Your task to perform on an android device: Search for "dell alienware" on newegg, select the first entry, and add it to the cart. Image 0: 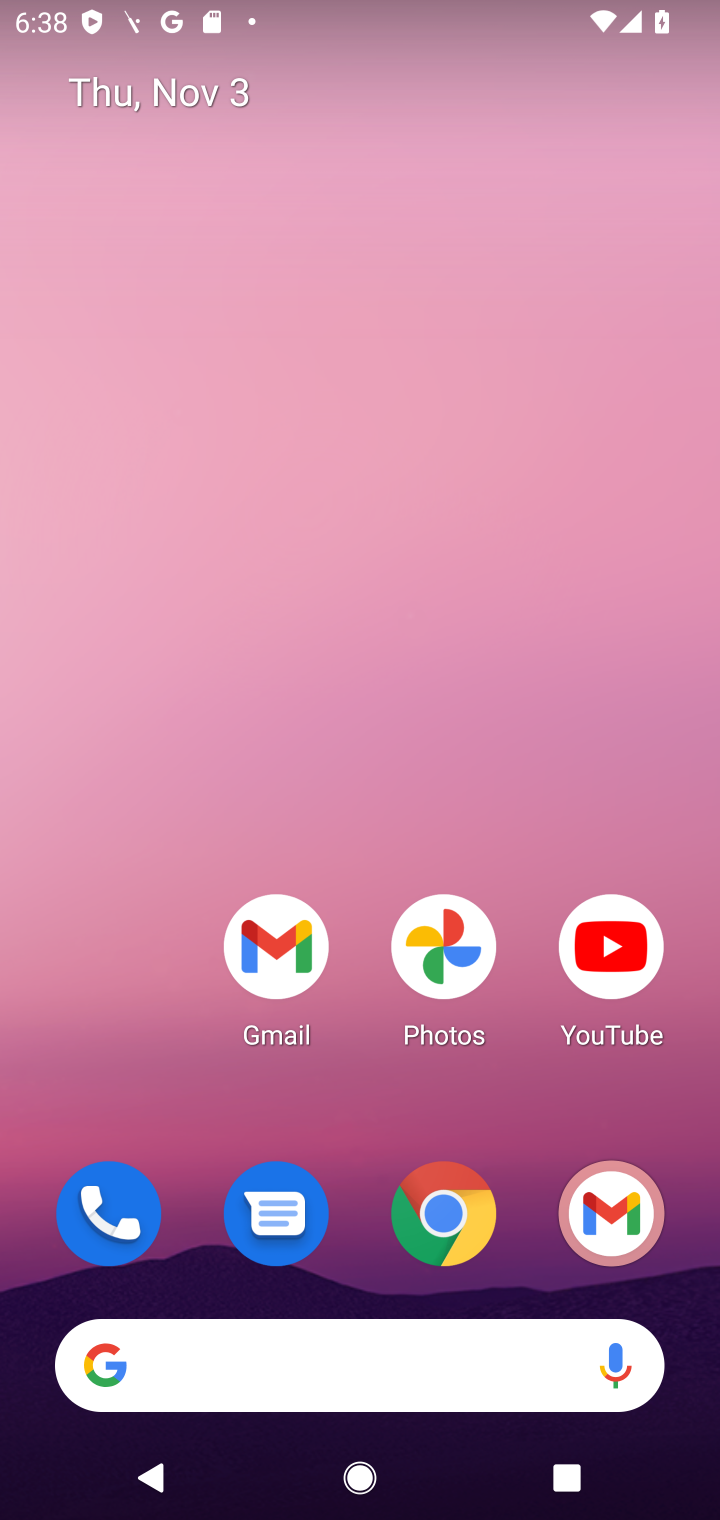
Step 0: click (440, 1208)
Your task to perform on an android device: Search for "dell alienware" on newegg, select the first entry, and add it to the cart. Image 1: 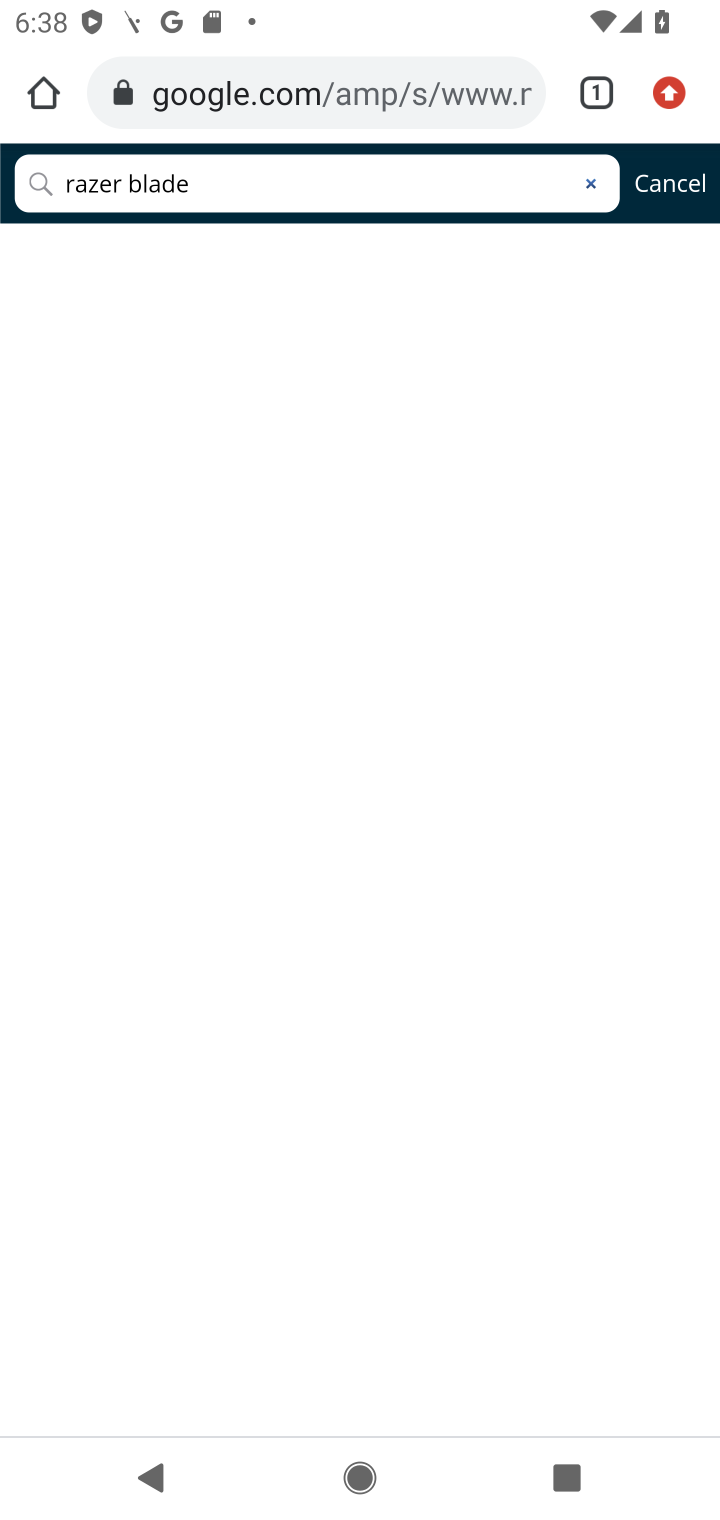
Step 1: click (196, 91)
Your task to perform on an android device: Search for "dell alienware" on newegg, select the first entry, and add it to the cart. Image 2: 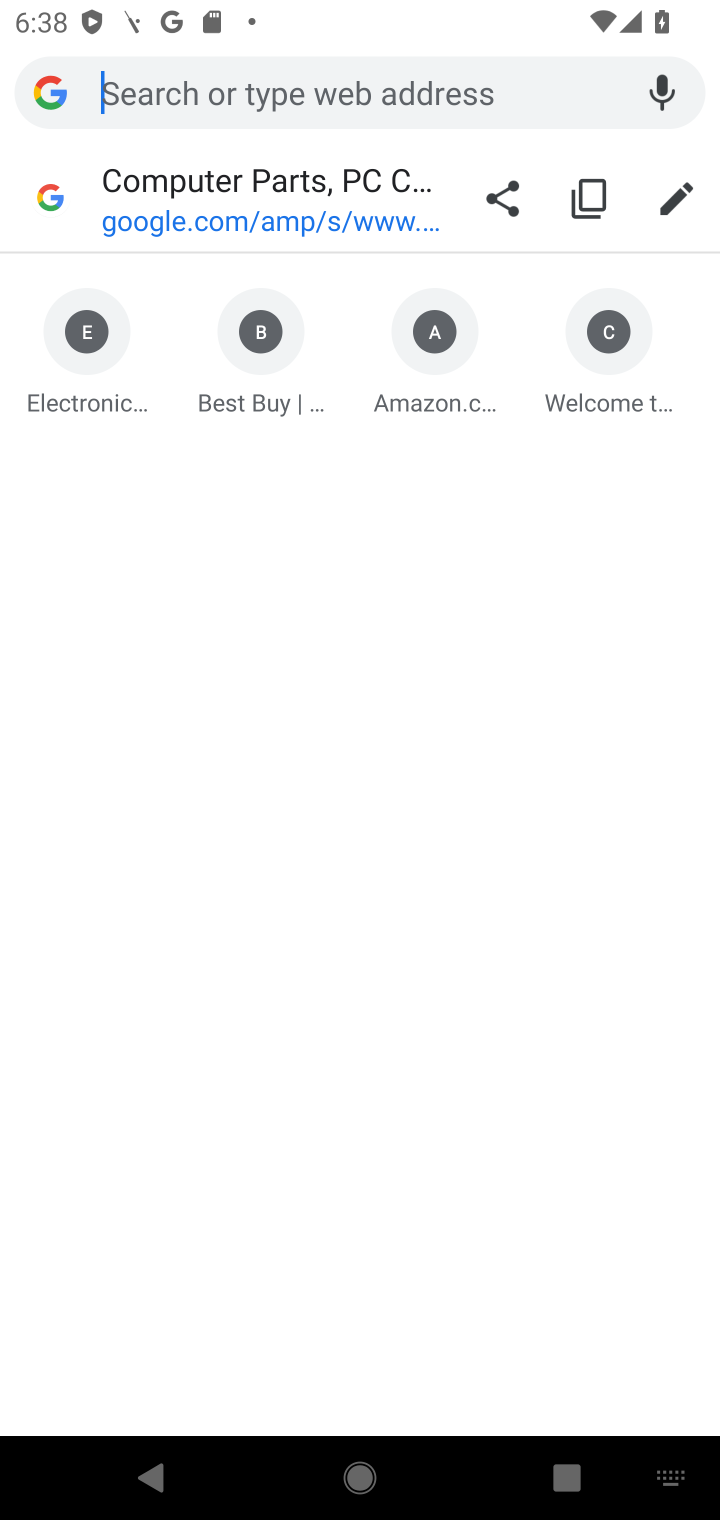
Step 2: type "newegg.com"
Your task to perform on an android device: Search for "dell alienware" on newegg, select the first entry, and add it to the cart. Image 3: 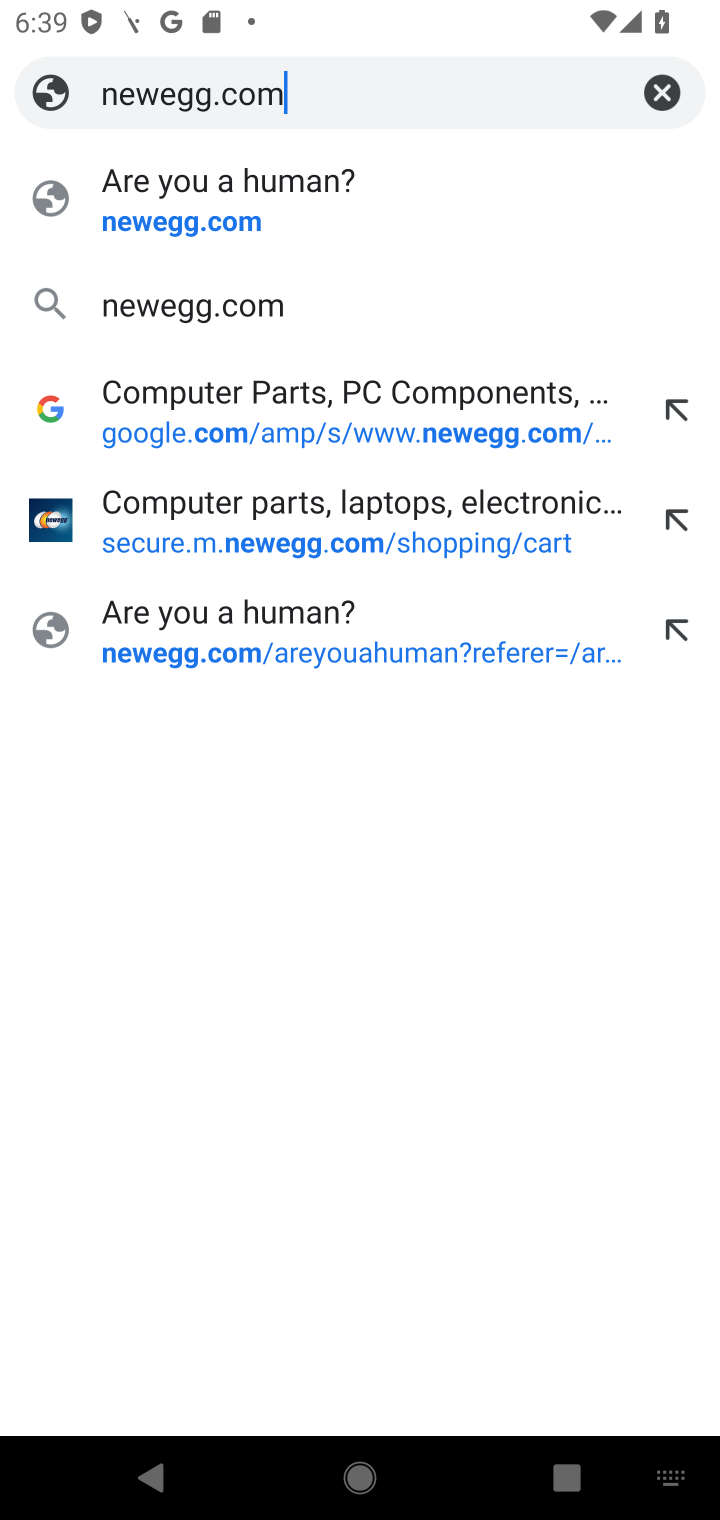
Step 3: click (187, 328)
Your task to perform on an android device: Search for "dell alienware" on newegg, select the first entry, and add it to the cart. Image 4: 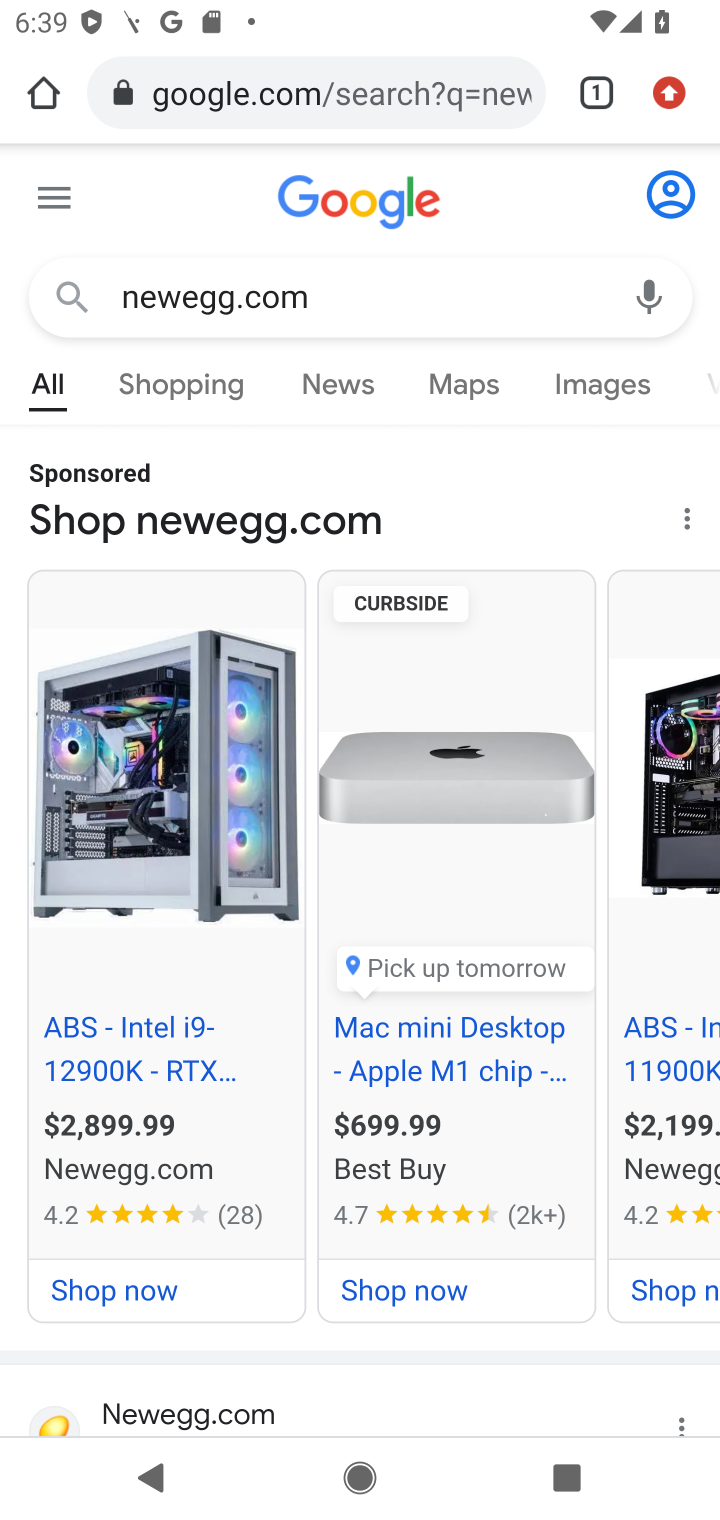
Step 4: drag from (296, 1023) to (262, 307)
Your task to perform on an android device: Search for "dell alienware" on newegg, select the first entry, and add it to the cart. Image 5: 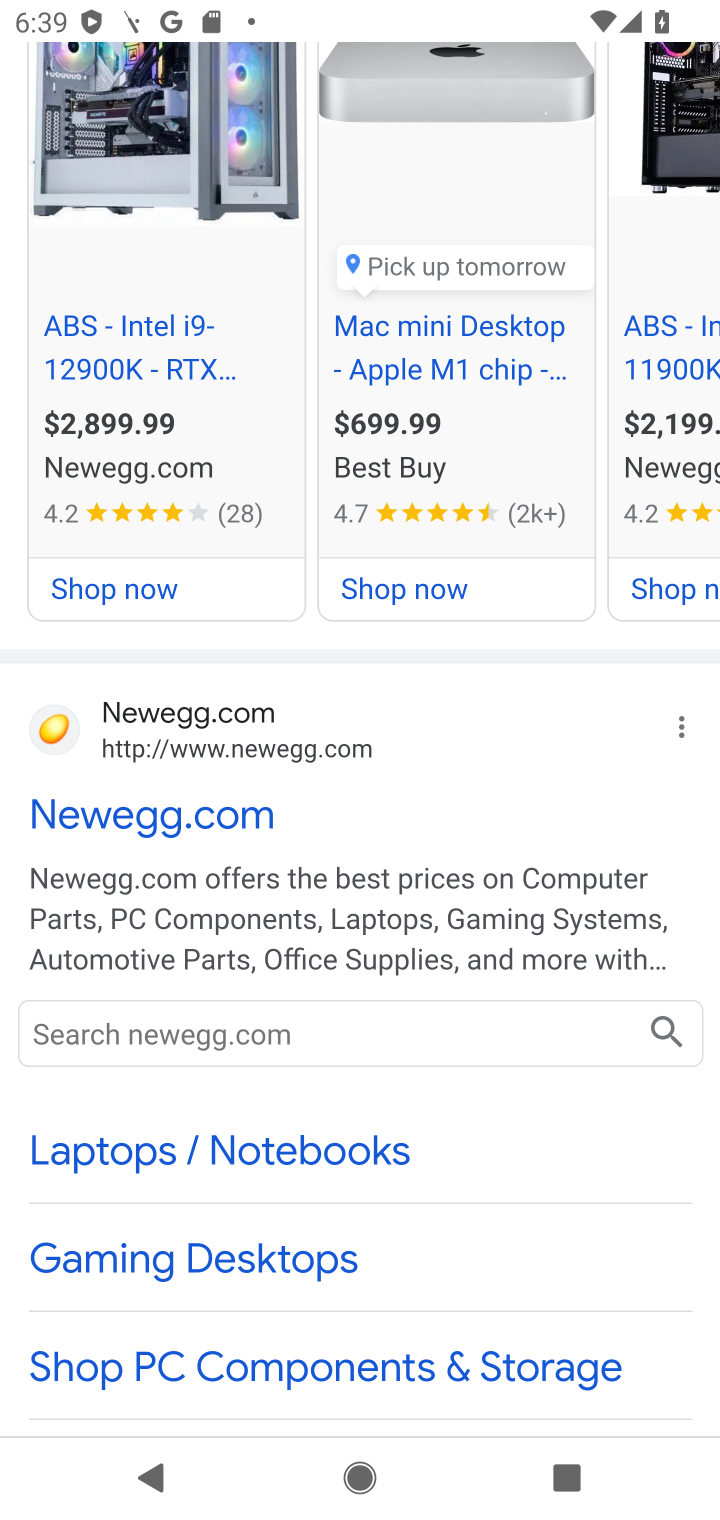
Step 5: click (125, 819)
Your task to perform on an android device: Search for "dell alienware" on newegg, select the first entry, and add it to the cart. Image 6: 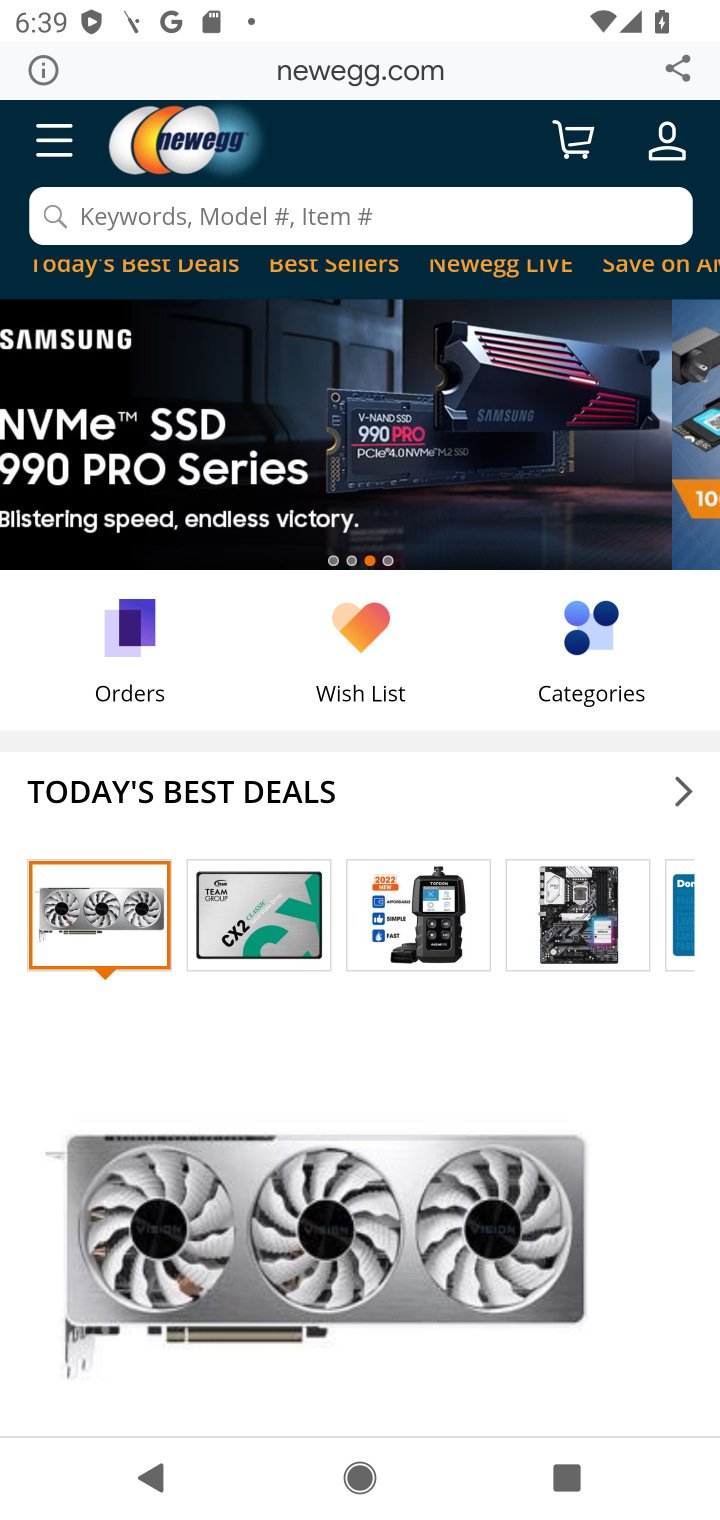
Step 6: click (178, 229)
Your task to perform on an android device: Search for "dell alienware" on newegg, select the first entry, and add it to the cart. Image 7: 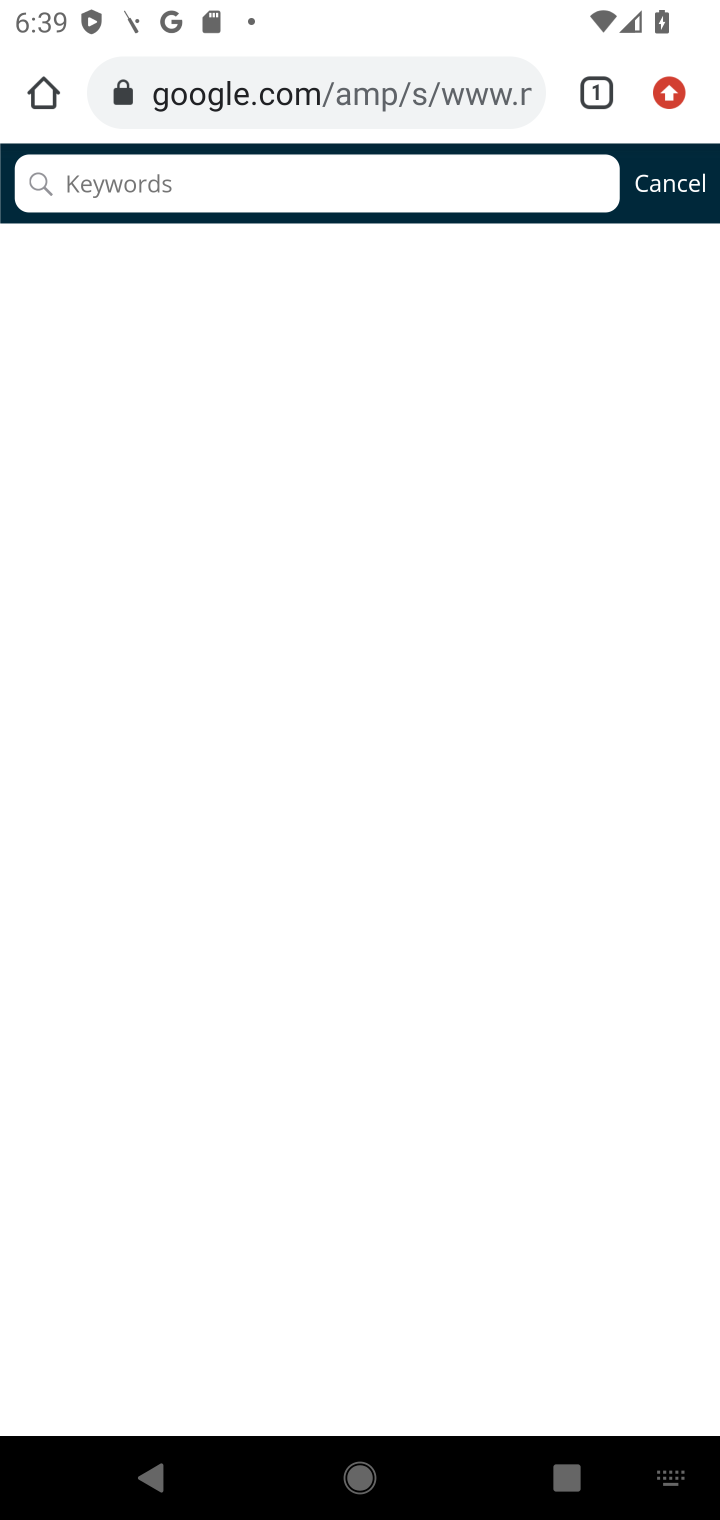
Step 7: type "dell alienware"
Your task to perform on an android device: Search for "dell alienware" on newegg, select the first entry, and add it to the cart. Image 8: 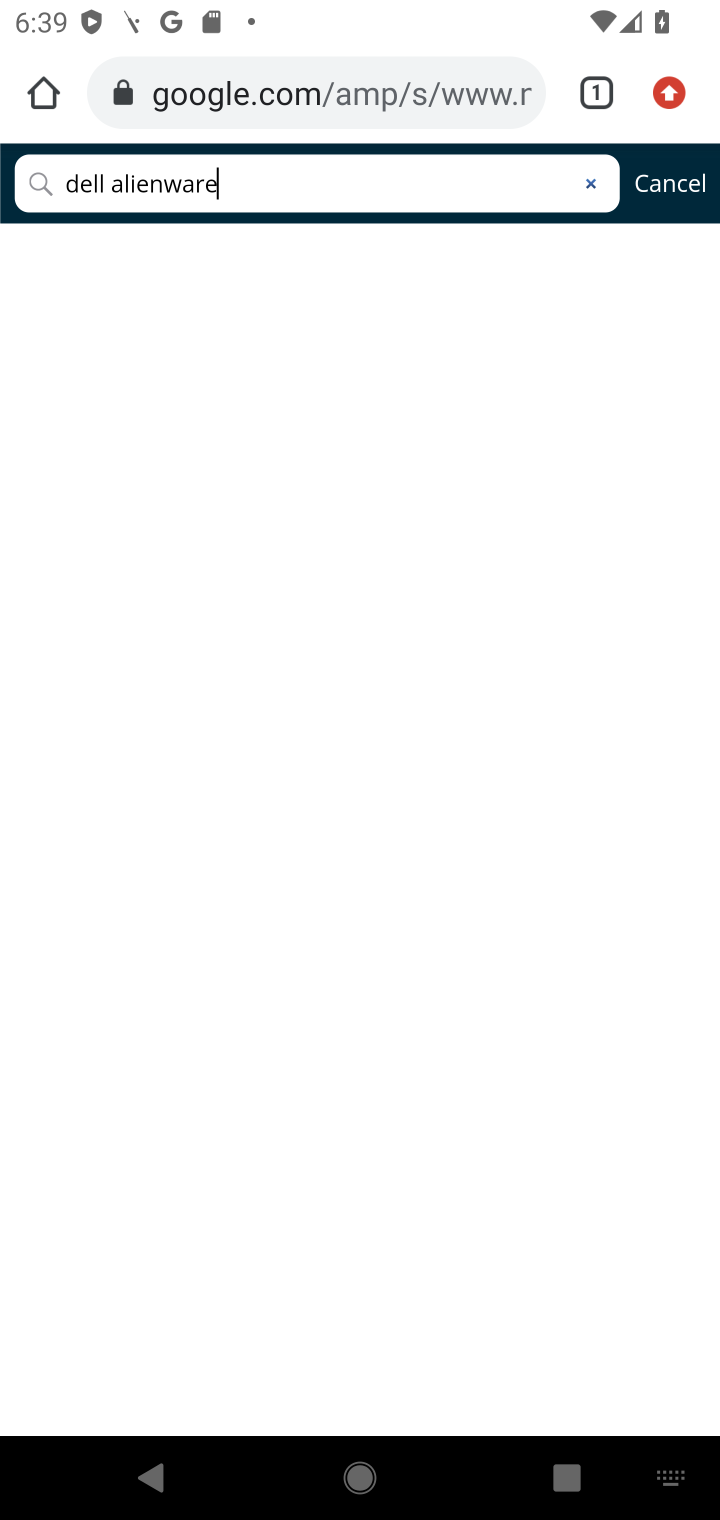
Step 8: click (50, 178)
Your task to perform on an android device: Search for "dell alienware" on newegg, select the first entry, and add it to the cart. Image 9: 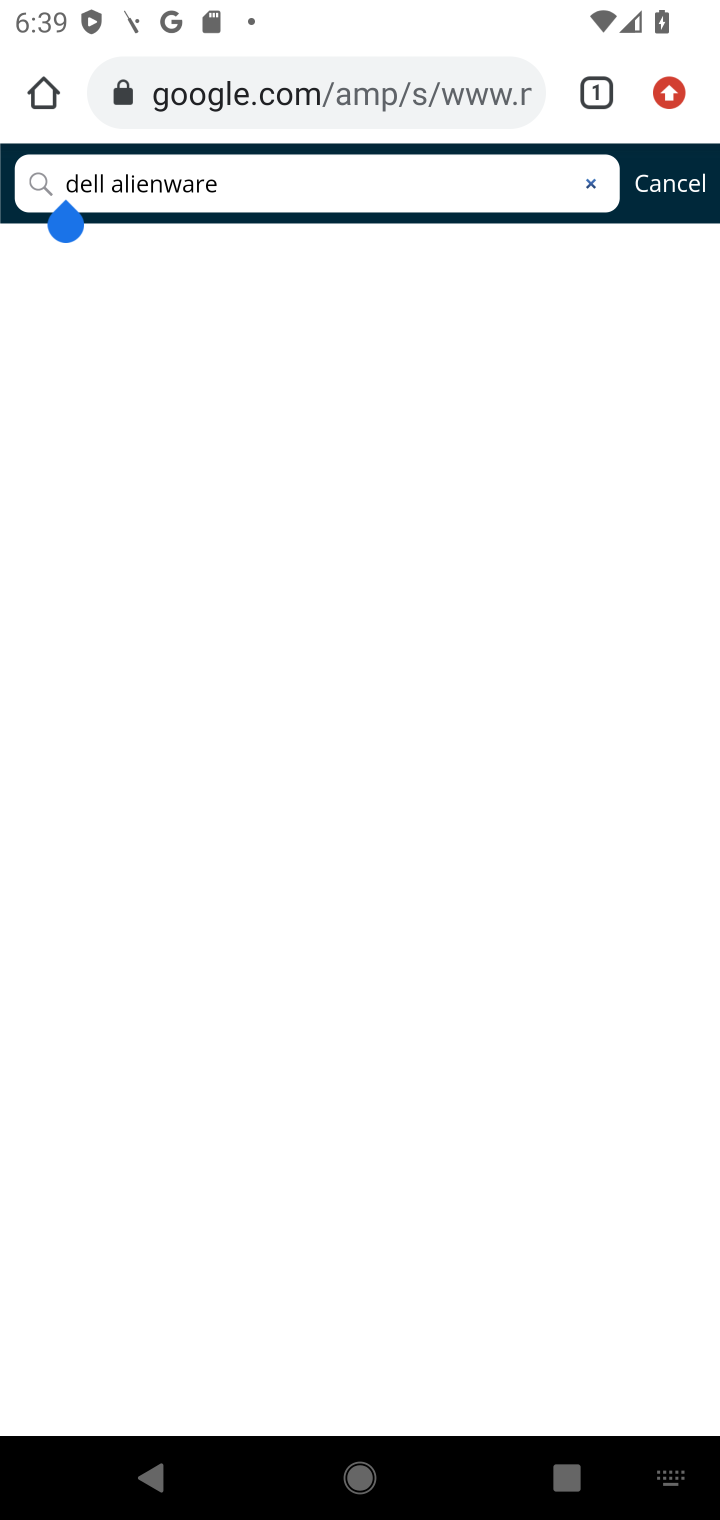
Step 9: task complete